Your task to perform on an android device: Open battery settings Image 0: 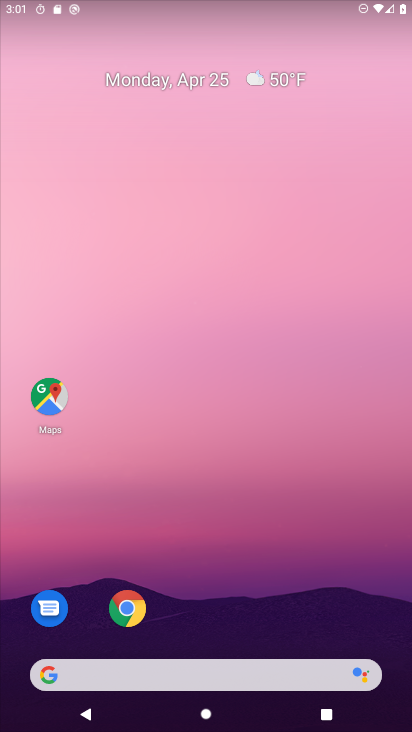
Step 0: drag from (224, 632) to (240, 157)
Your task to perform on an android device: Open battery settings Image 1: 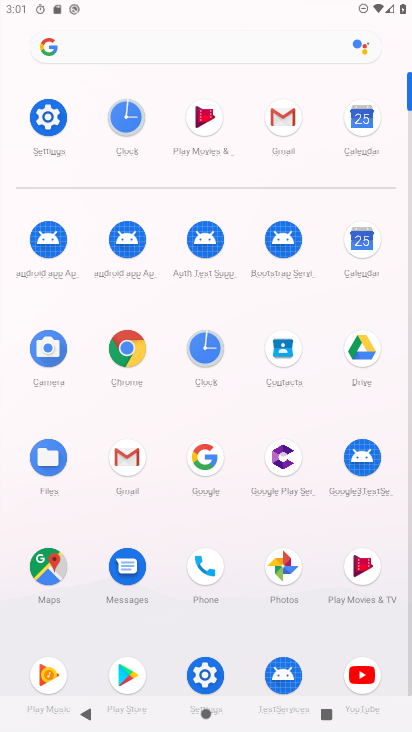
Step 1: click (36, 127)
Your task to perform on an android device: Open battery settings Image 2: 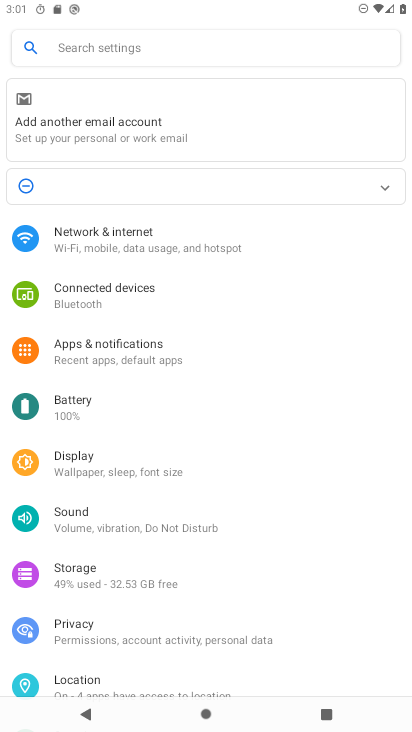
Step 2: click (92, 406)
Your task to perform on an android device: Open battery settings Image 3: 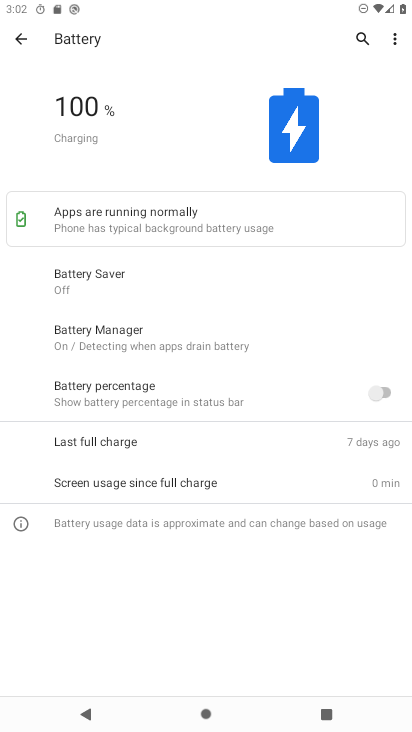
Step 3: task complete